Your task to perform on an android device: see creations saved in the google photos Image 0: 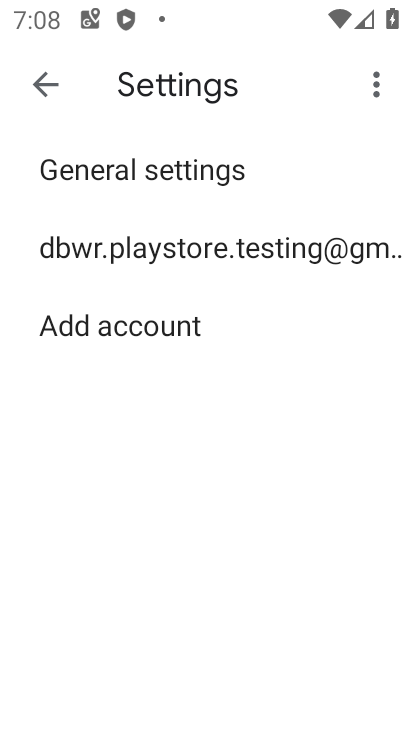
Step 0: press home button
Your task to perform on an android device: see creations saved in the google photos Image 1: 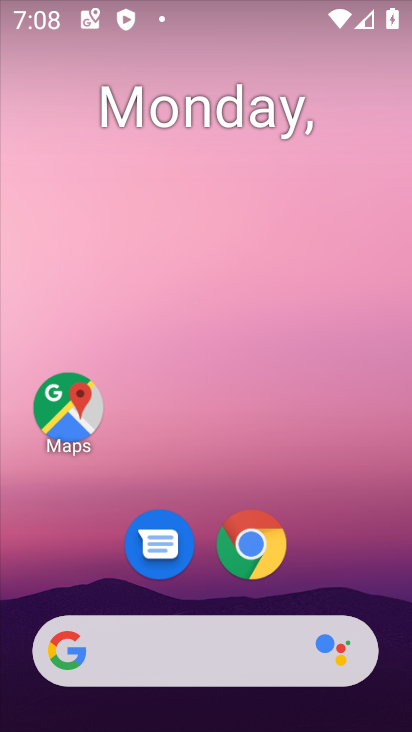
Step 1: drag from (349, 543) to (274, 6)
Your task to perform on an android device: see creations saved in the google photos Image 2: 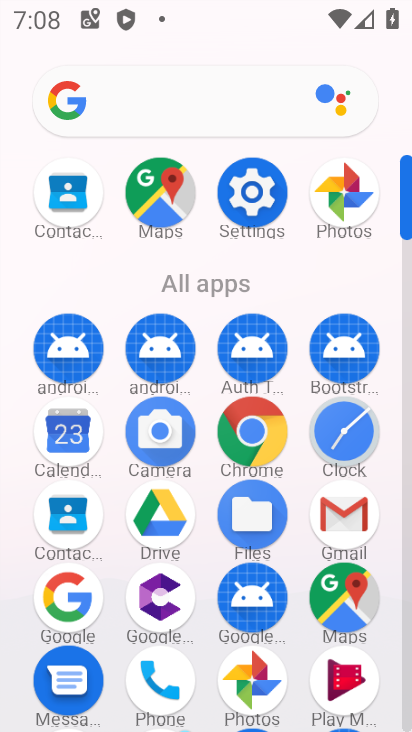
Step 2: click (343, 197)
Your task to perform on an android device: see creations saved in the google photos Image 3: 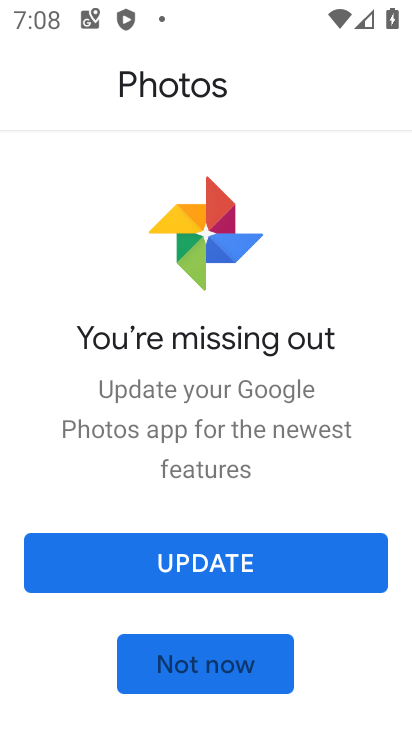
Step 3: click (192, 570)
Your task to perform on an android device: see creations saved in the google photos Image 4: 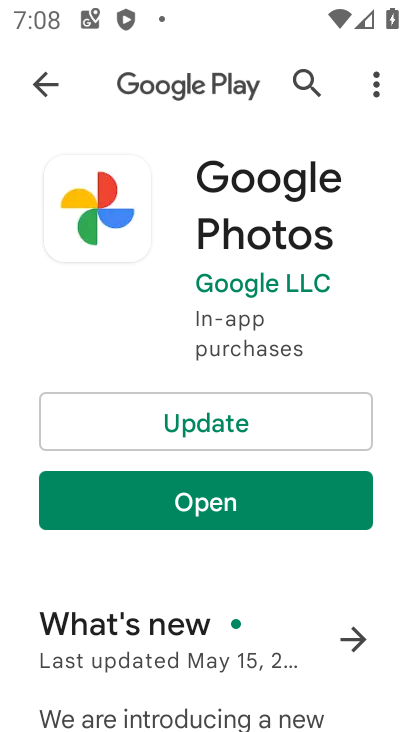
Step 4: click (206, 408)
Your task to perform on an android device: see creations saved in the google photos Image 5: 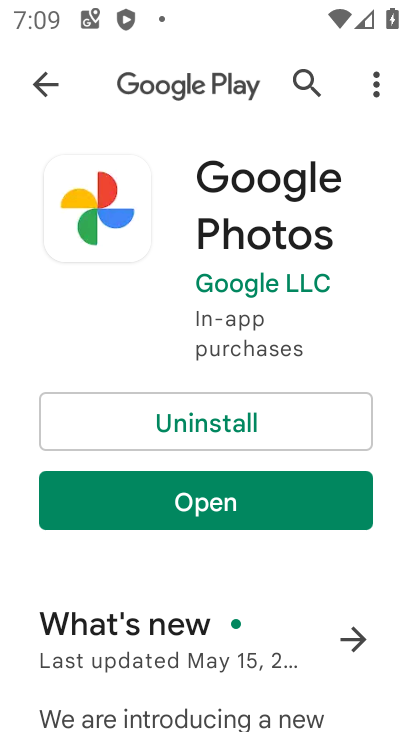
Step 5: click (211, 501)
Your task to perform on an android device: see creations saved in the google photos Image 6: 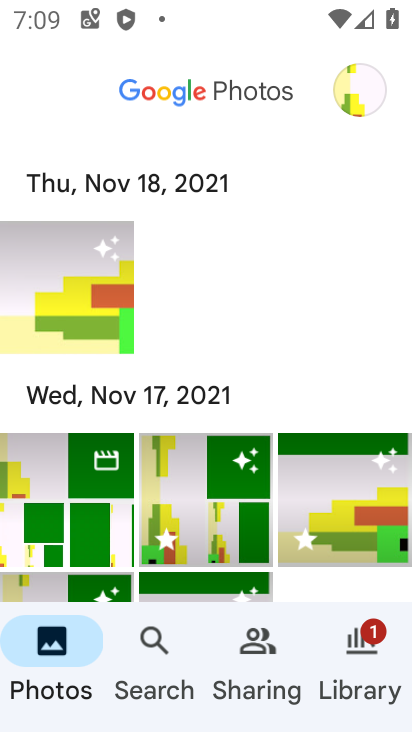
Step 6: click (152, 645)
Your task to perform on an android device: see creations saved in the google photos Image 7: 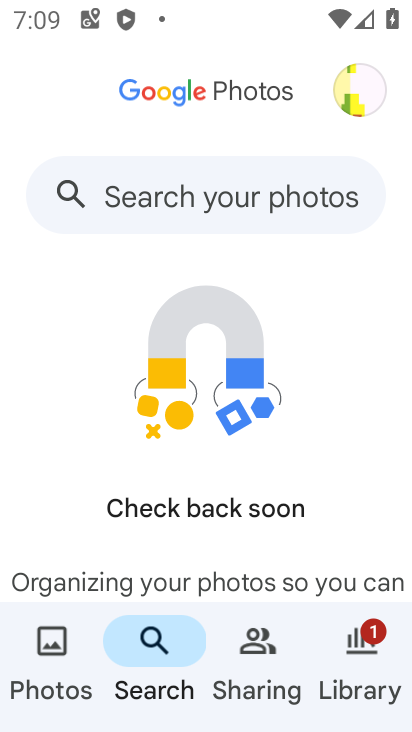
Step 7: click (129, 181)
Your task to perform on an android device: see creations saved in the google photos Image 8: 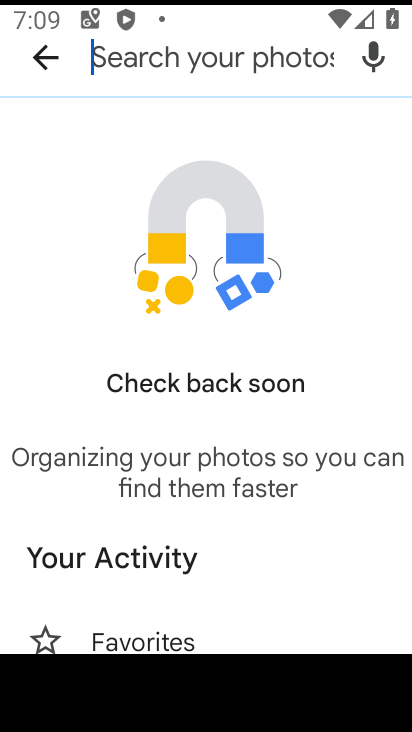
Step 8: type "creation"
Your task to perform on an android device: see creations saved in the google photos Image 9: 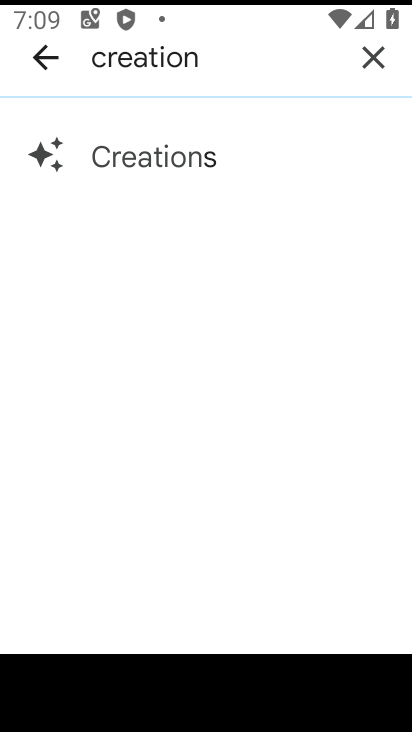
Step 9: click (157, 164)
Your task to perform on an android device: see creations saved in the google photos Image 10: 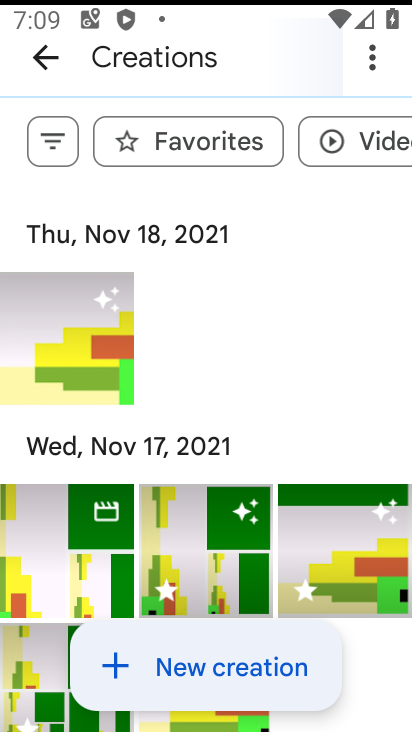
Step 10: task complete